Your task to perform on an android device: snooze an email in the gmail app Image 0: 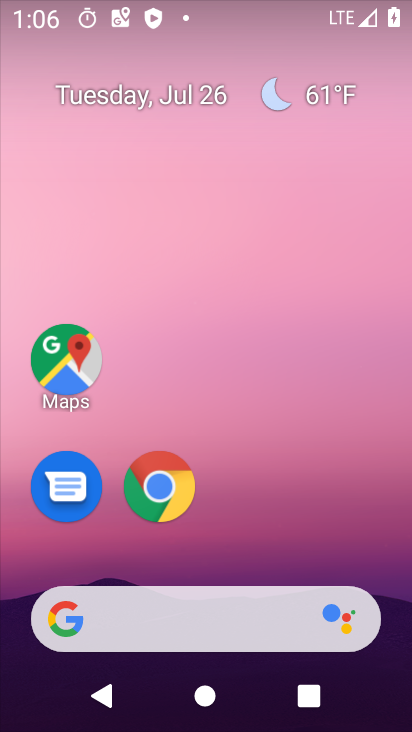
Step 0: drag from (334, 523) to (342, 156)
Your task to perform on an android device: snooze an email in the gmail app Image 1: 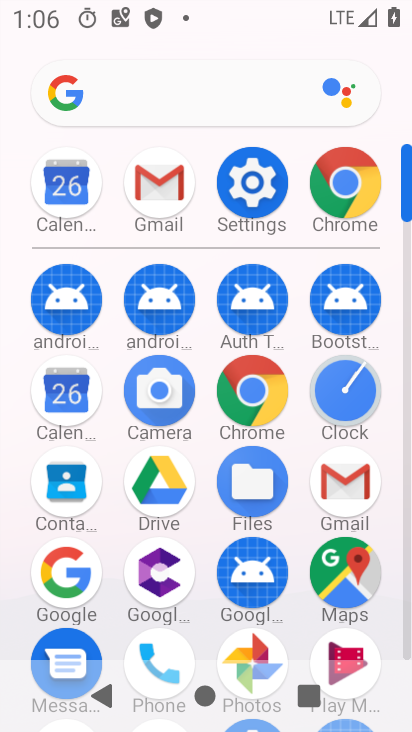
Step 1: click (348, 483)
Your task to perform on an android device: snooze an email in the gmail app Image 2: 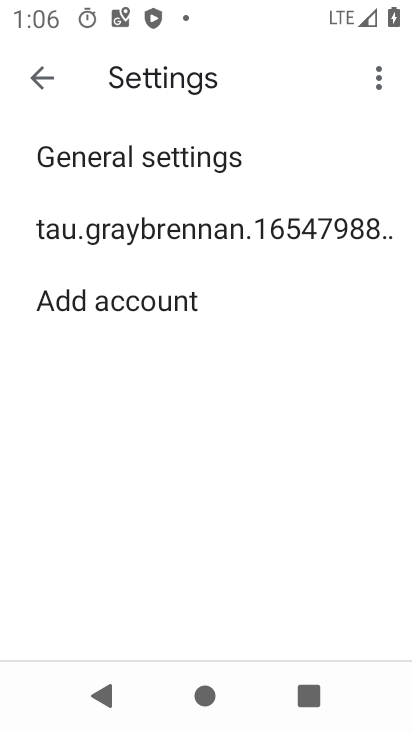
Step 2: press back button
Your task to perform on an android device: snooze an email in the gmail app Image 3: 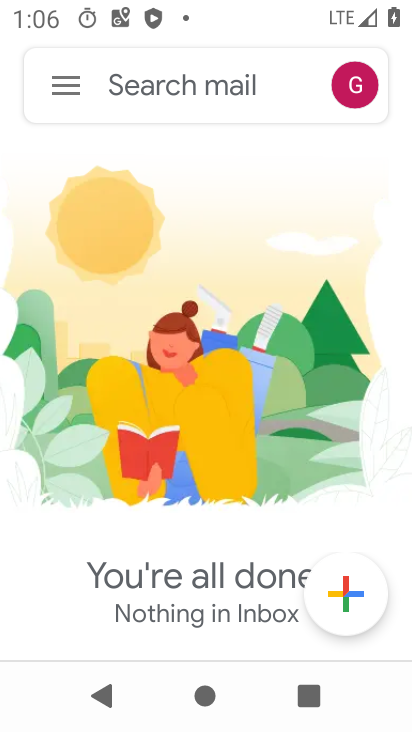
Step 3: click (65, 82)
Your task to perform on an android device: snooze an email in the gmail app Image 4: 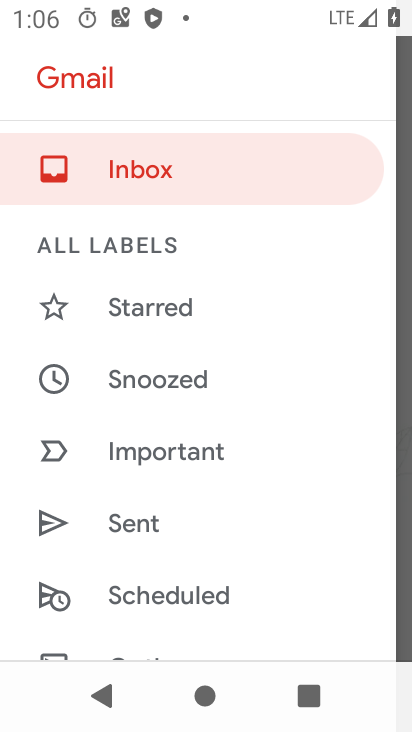
Step 4: drag from (267, 478) to (286, 341)
Your task to perform on an android device: snooze an email in the gmail app Image 5: 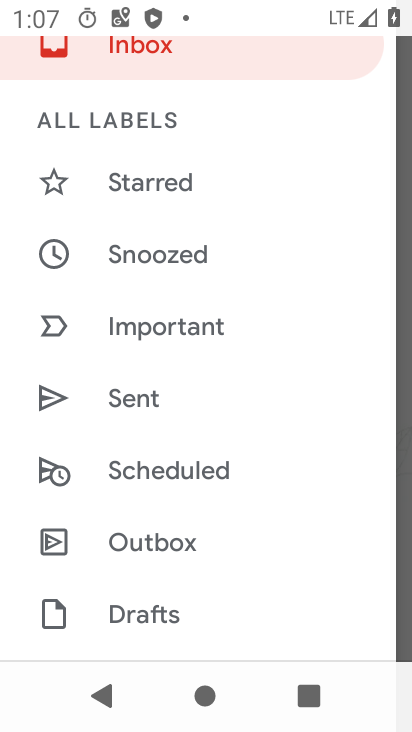
Step 5: click (204, 268)
Your task to perform on an android device: snooze an email in the gmail app Image 6: 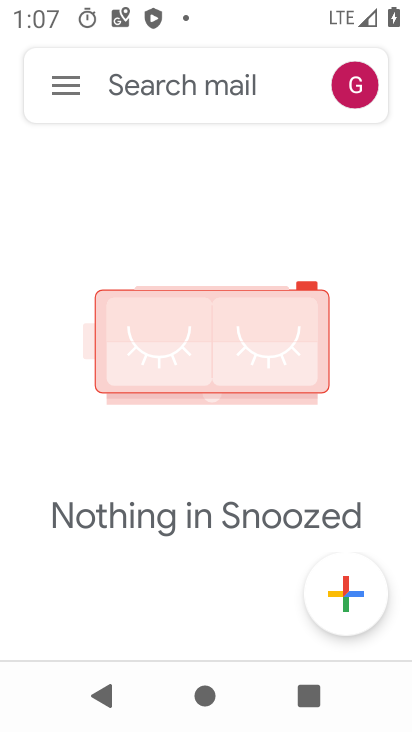
Step 6: task complete